Your task to perform on an android device: open app "PUBG MOBILE" (install if not already installed) Image 0: 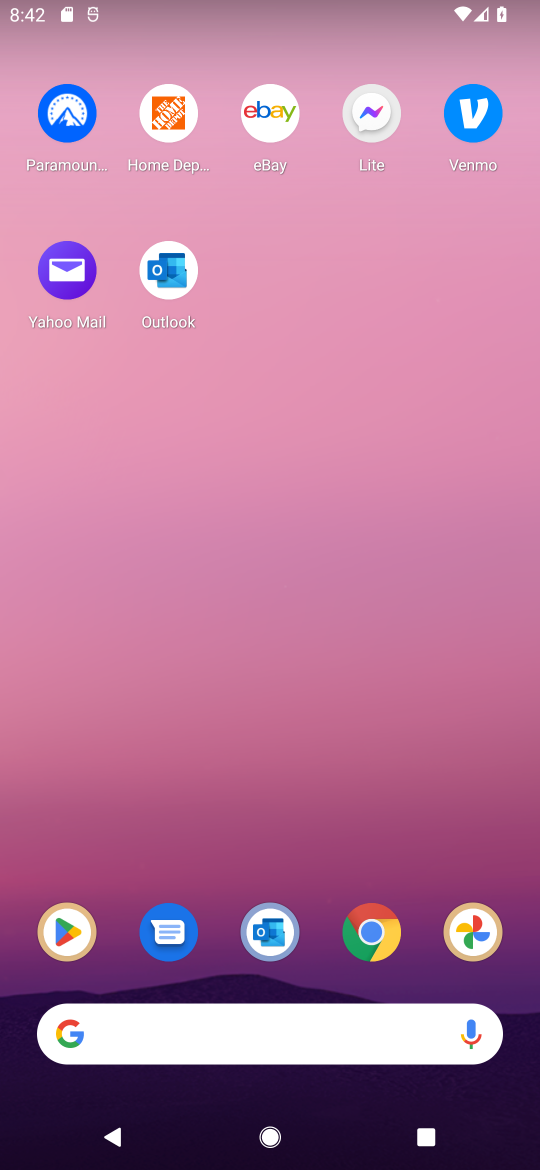
Step 0: click (75, 931)
Your task to perform on an android device: open app "PUBG MOBILE" (install if not already installed) Image 1: 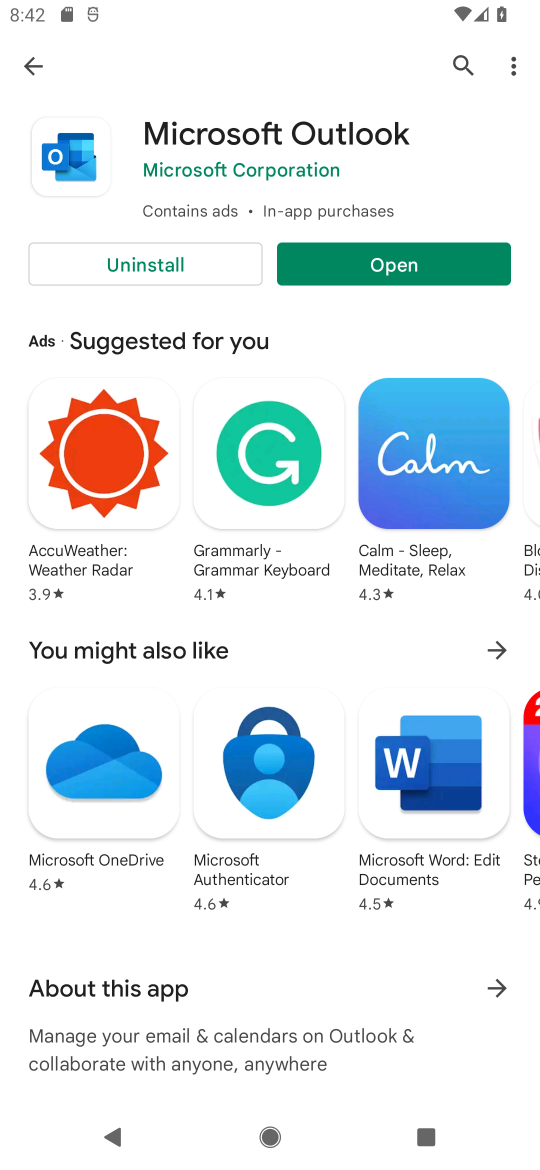
Step 1: click (470, 69)
Your task to perform on an android device: open app "PUBG MOBILE" (install if not already installed) Image 2: 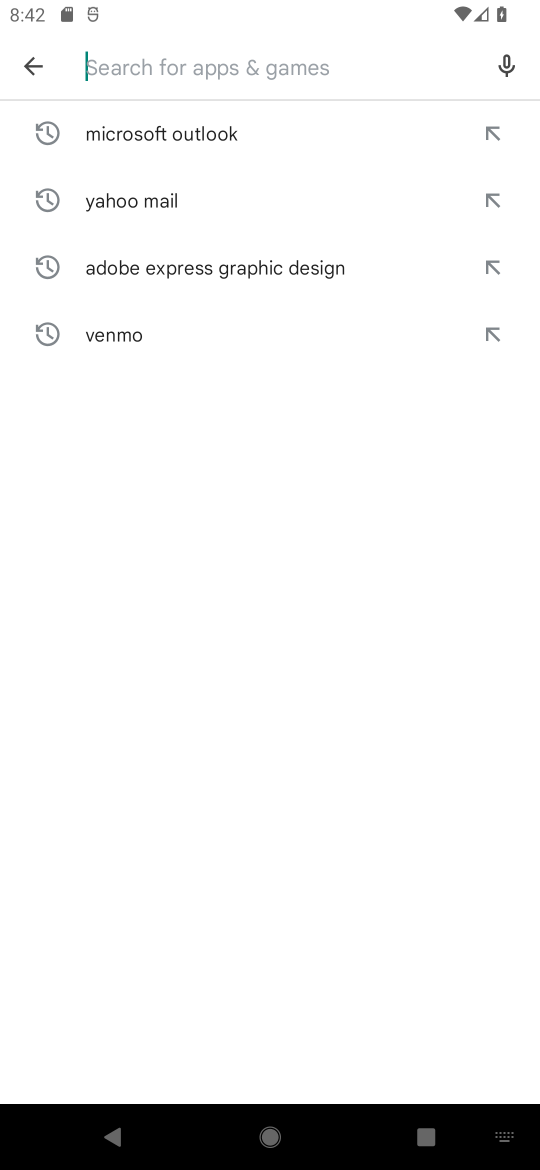
Step 2: type "pubg mobile"
Your task to perform on an android device: open app "PUBG MOBILE" (install if not already installed) Image 3: 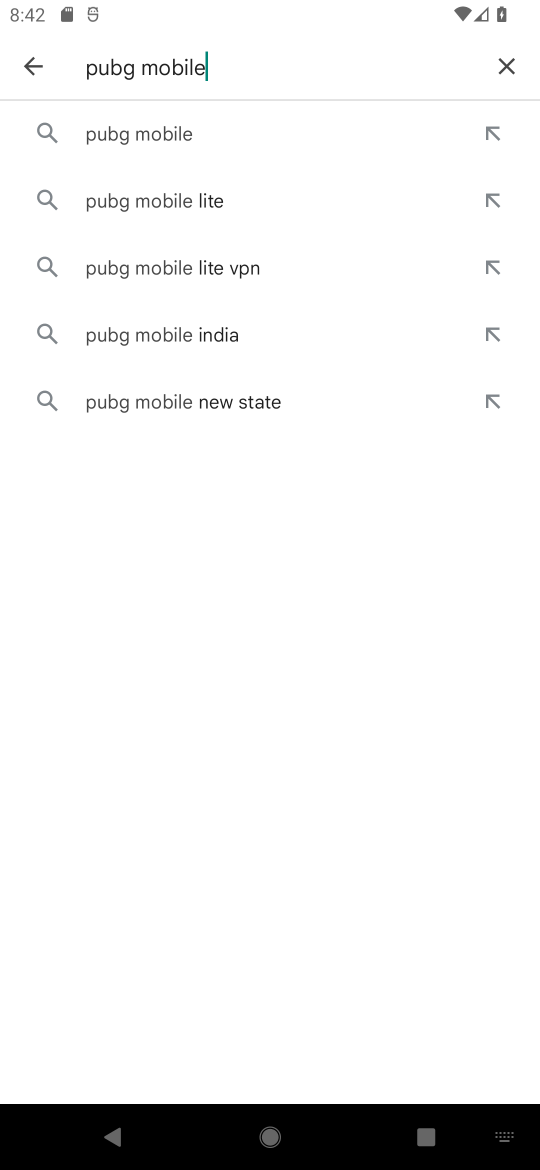
Step 3: click (163, 130)
Your task to perform on an android device: open app "PUBG MOBILE" (install if not already installed) Image 4: 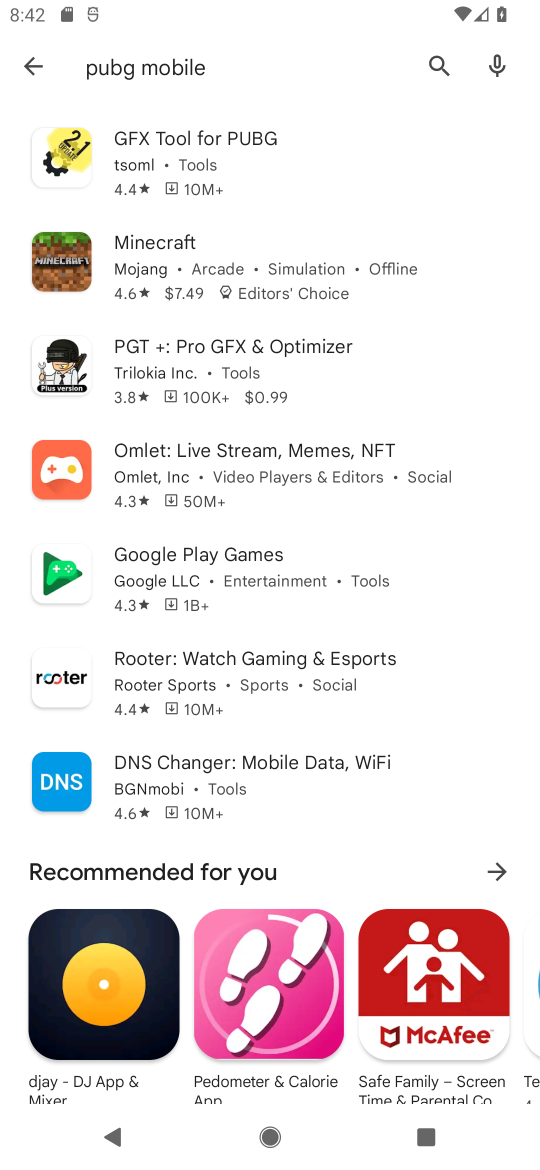
Step 4: task complete